Your task to perform on an android device: open app "Gmail" (install if not already installed) Image 0: 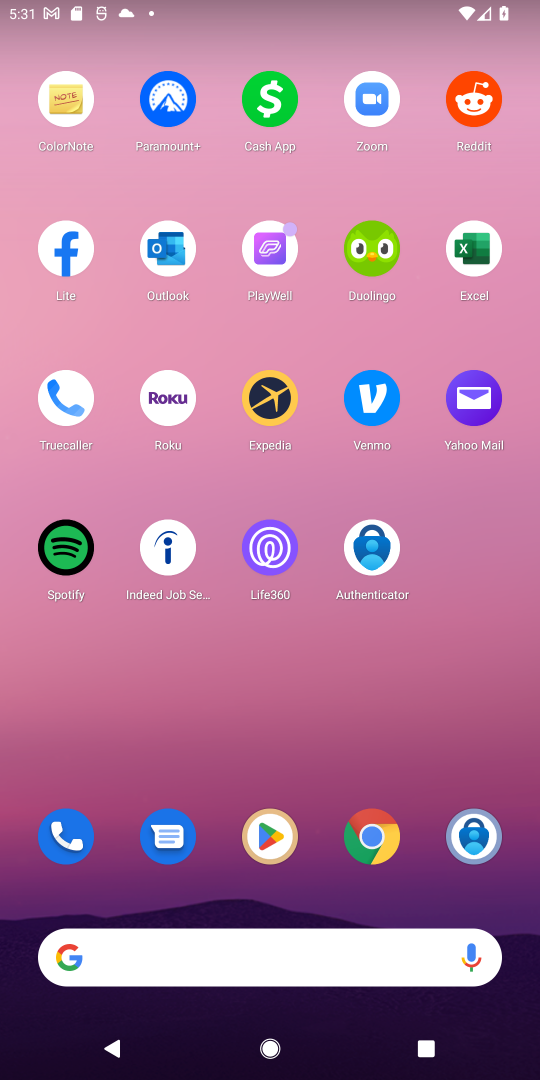
Step 0: drag from (132, 713) to (539, 673)
Your task to perform on an android device: open app "Gmail" (install if not already installed) Image 1: 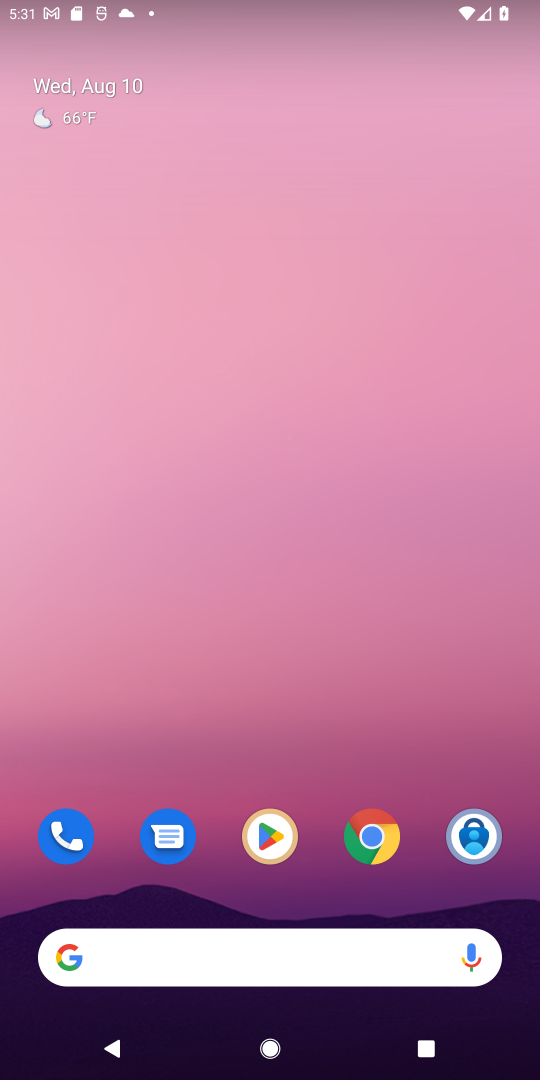
Step 1: drag from (101, 895) to (142, 223)
Your task to perform on an android device: open app "Gmail" (install if not already installed) Image 2: 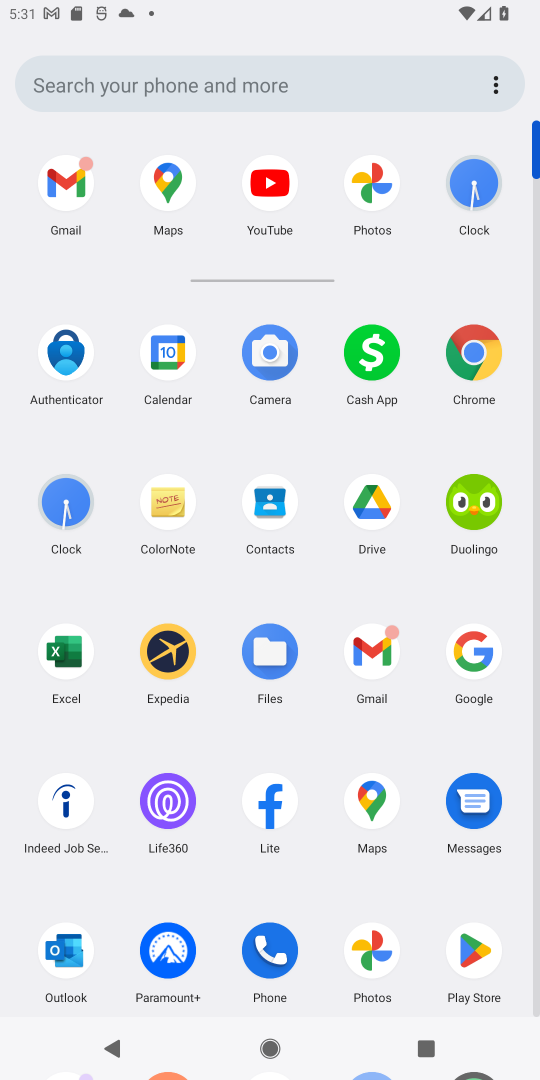
Step 2: click (460, 936)
Your task to perform on an android device: open app "Gmail" (install if not already installed) Image 3: 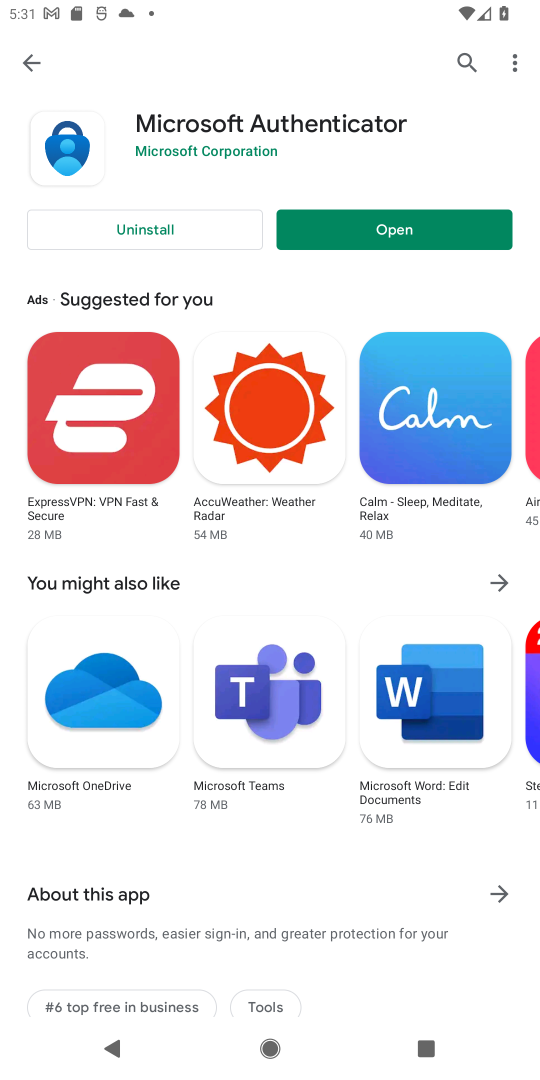
Step 3: click (25, 53)
Your task to perform on an android device: open app "Gmail" (install if not already installed) Image 4: 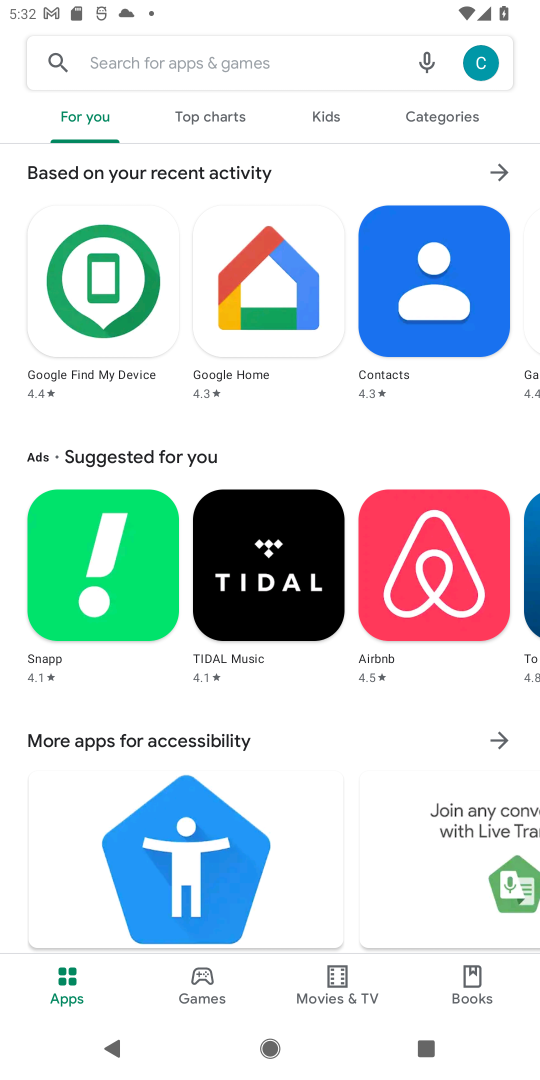
Step 4: click (266, 54)
Your task to perform on an android device: open app "Gmail" (install if not already installed) Image 5: 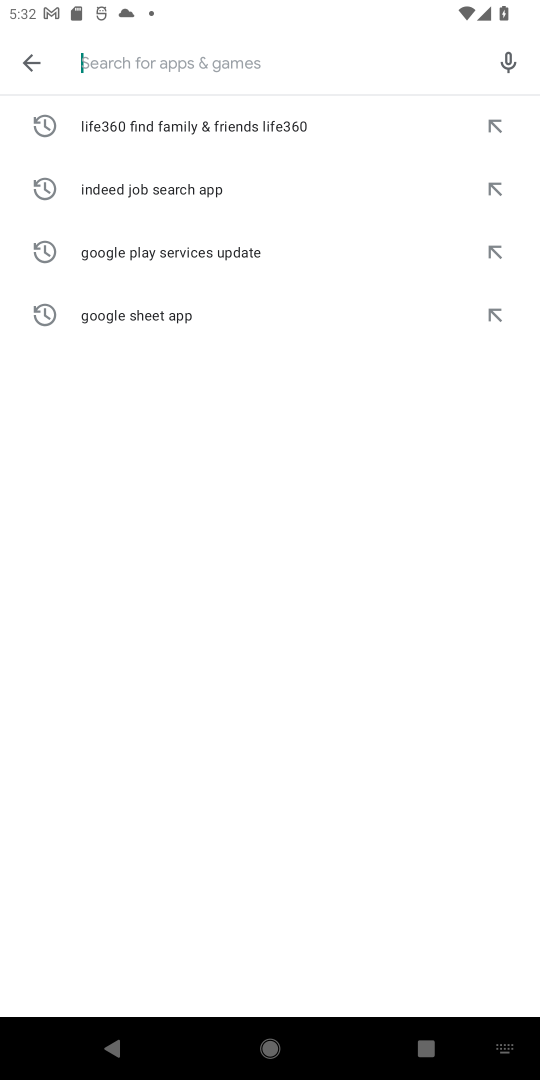
Step 5: type "Gmai "
Your task to perform on an android device: open app "Gmail" (install if not already installed) Image 6: 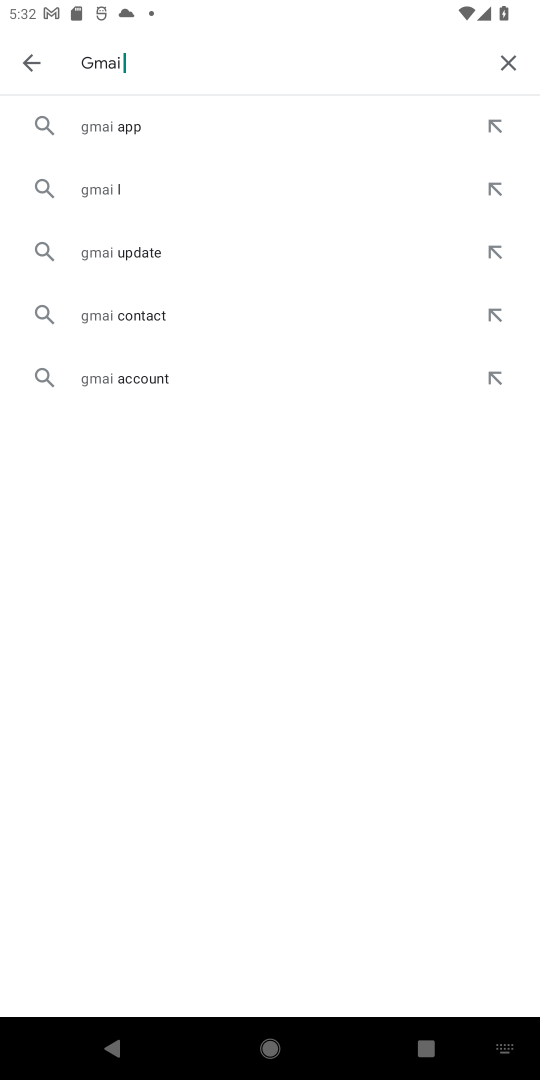
Step 6: click (92, 118)
Your task to perform on an android device: open app "Gmail" (install if not already installed) Image 7: 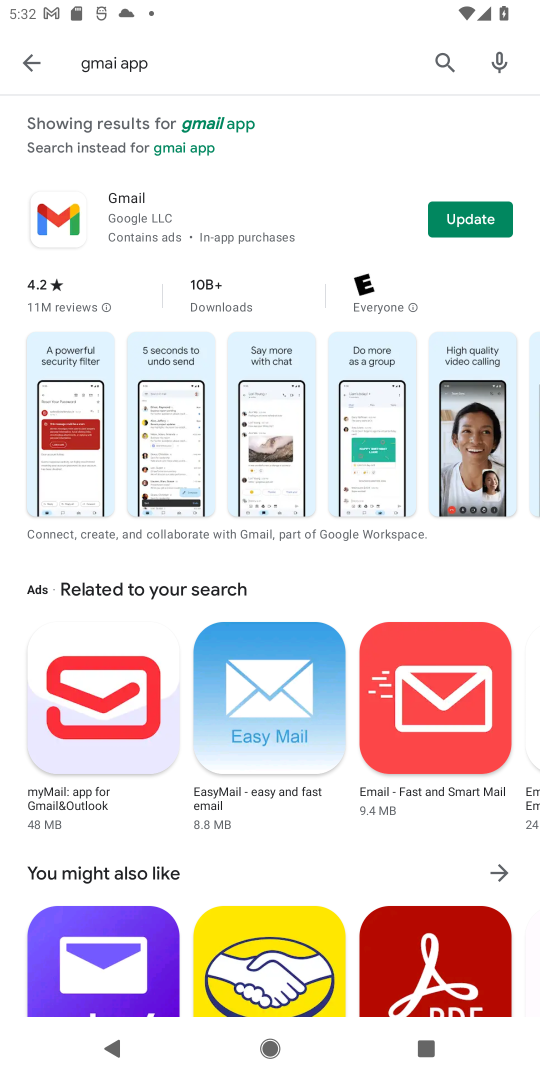
Step 7: click (497, 213)
Your task to perform on an android device: open app "Gmail" (install if not already installed) Image 8: 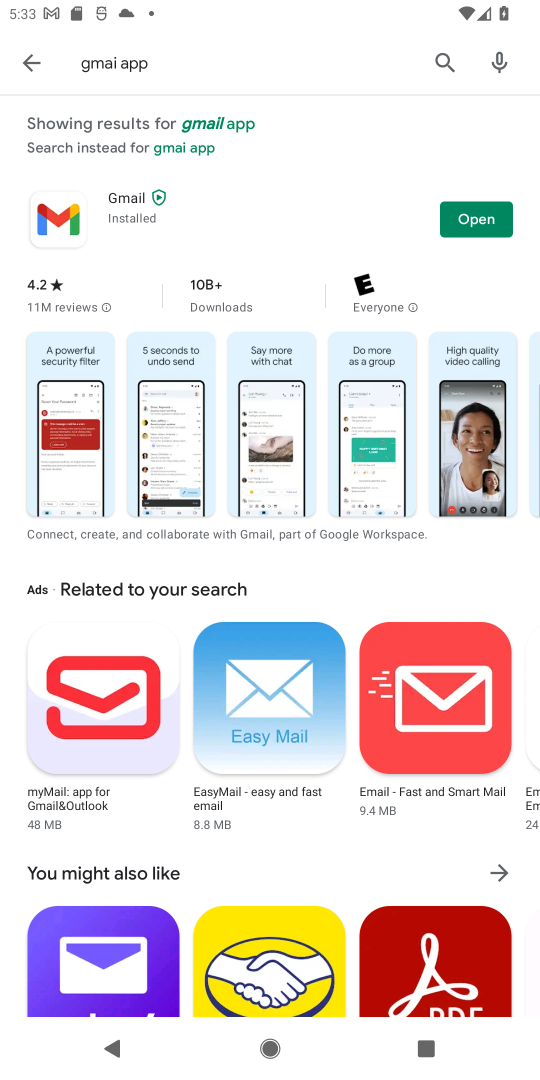
Step 8: click (474, 208)
Your task to perform on an android device: open app "Gmail" (install if not already installed) Image 9: 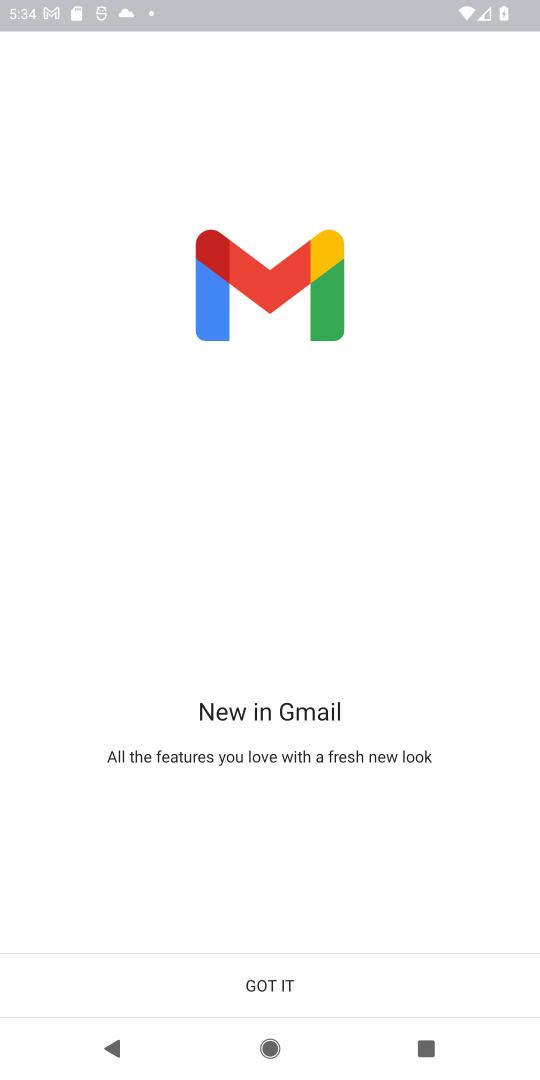
Step 9: click (318, 962)
Your task to perform on an android device: open app "Gmail" (install if not already installed) Image 10: 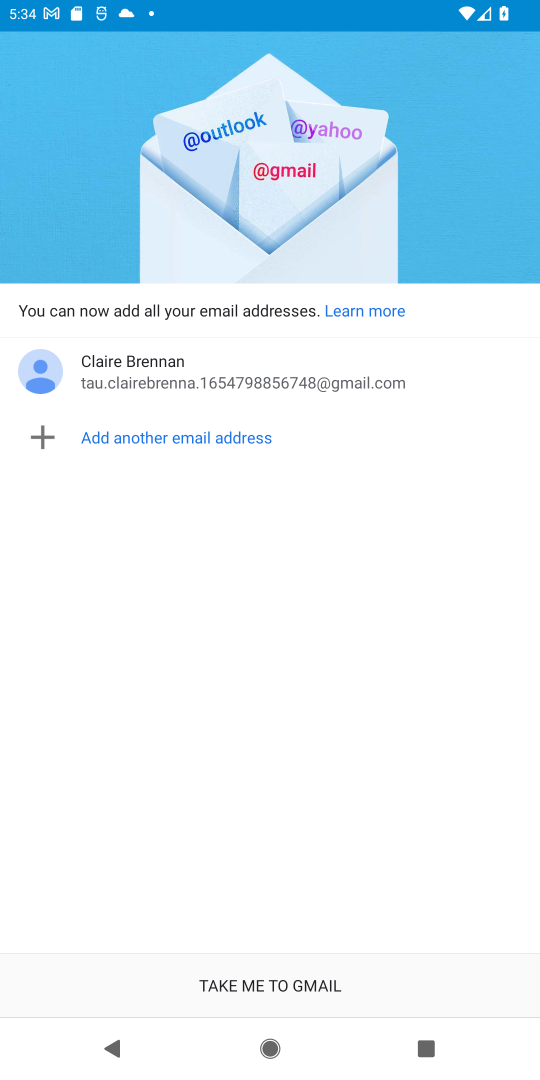
Step 10: click (301, 976)
Your task to perform on an android device: open app "Gmail" (install if not already installed) Image 11: 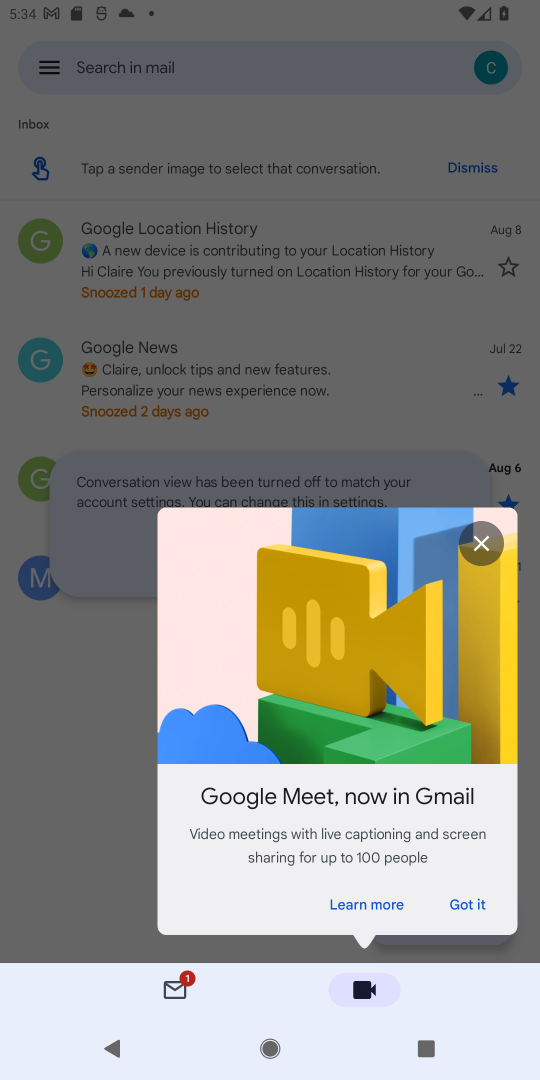
Step 11: click (470, 897)
Your task to perform on an android device: open app "Gmail" (install if not already installed) Image 12: 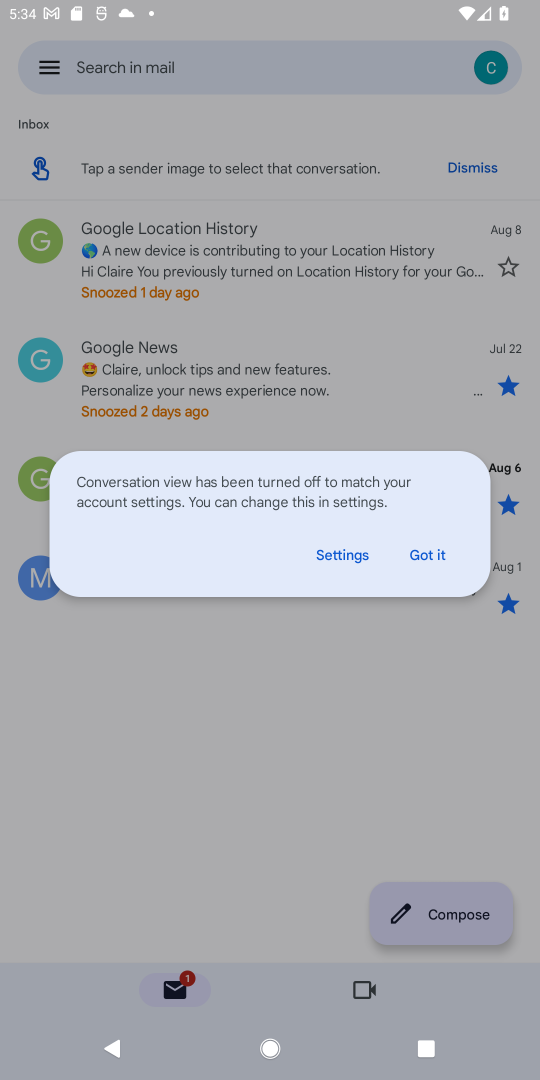
Step 12: task complete